Your task to perform on an android device: Open the phone app and click the voicemail tab. Image 0: 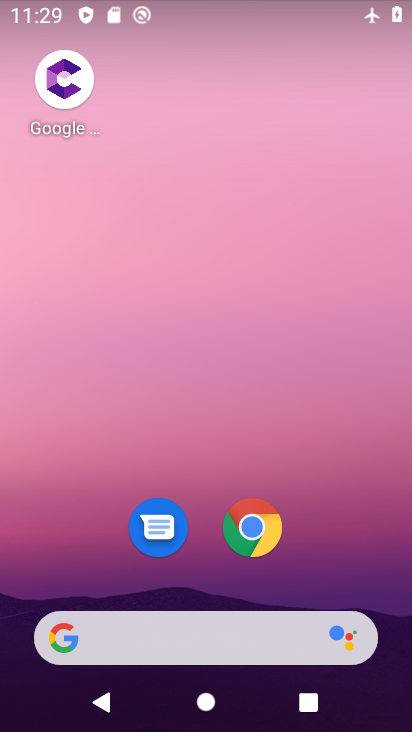
Step 0: drag from (349, 523) to (244, 93)
Your task to perform on an android device: Open the phone app and click the voicemail tab. Image 1: 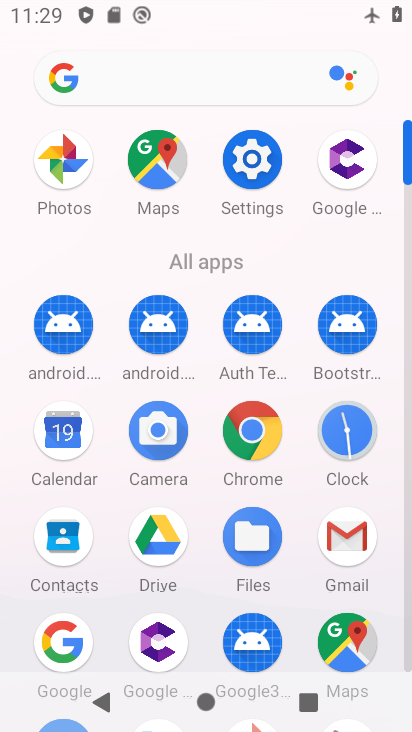
Step 1: click (405, 645)
Your task to perform on an android device: Open the phone app and click the voicemail tab. Image 2: 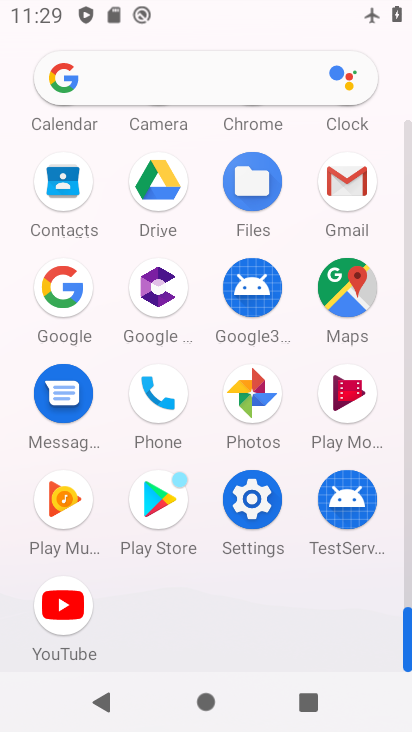
Step 2: click (165, 404)
Your task to perform on an android device: Open the phone app and click the voicemail tab. Image 3: 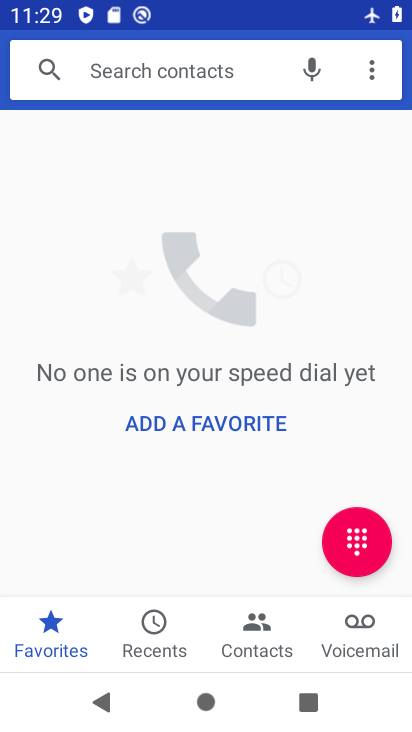
Step 3: click (366, 644)
Your task to perform on an android device: Open the phone app and click the voicemail tab. Image 4: 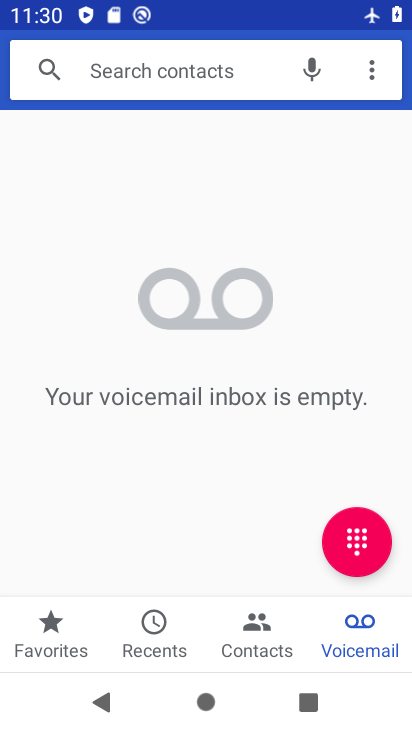
Step 4: task complete